Your task to perform on an android device: all mails in gmail Image 0: 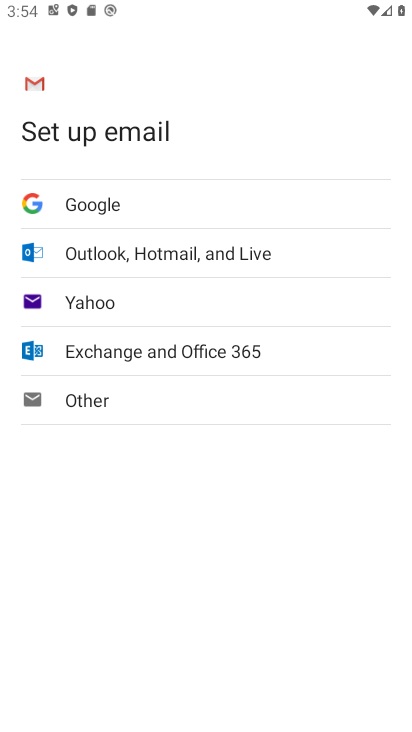
Step 0: press home button
Your task to perform on an android device: all mails in gmail Image 1: 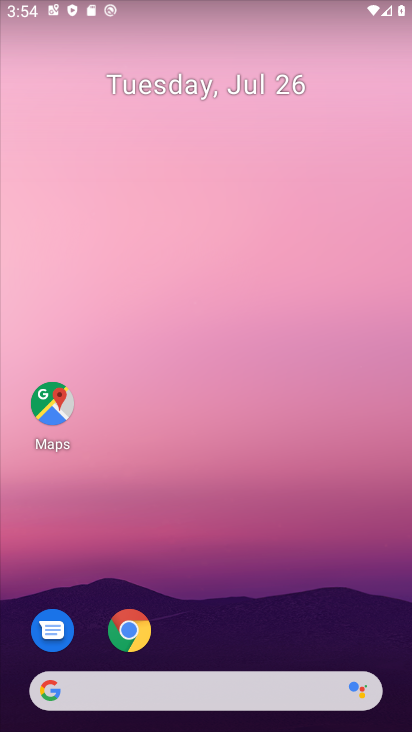
Step 1: drag from (225, 633) to (166, 162)
Your task to perform on an android device: all mails in gmail Image 2: 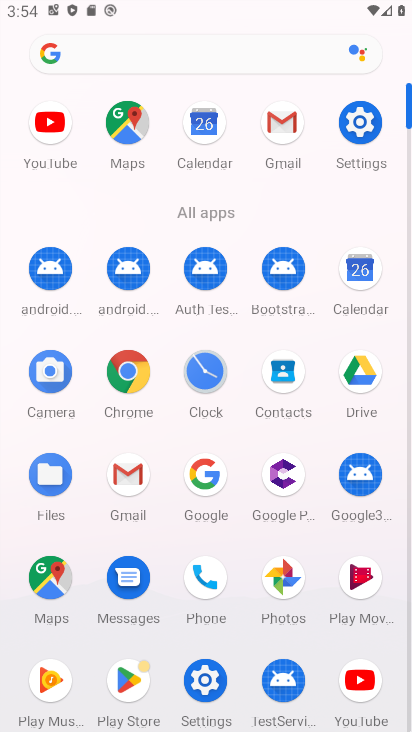
Step 2: click (287, 142)
Your task to perform on an android device: all mails in gmail Image 3: 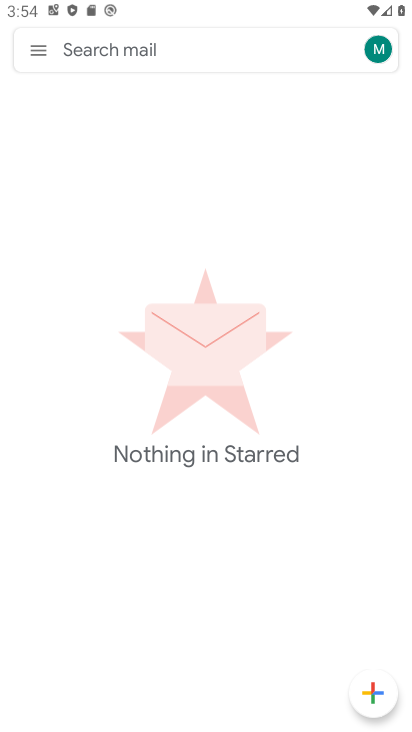
Step 3: click (35, 52)
Your task to perform on an android device: all mails in gmail Image 4: 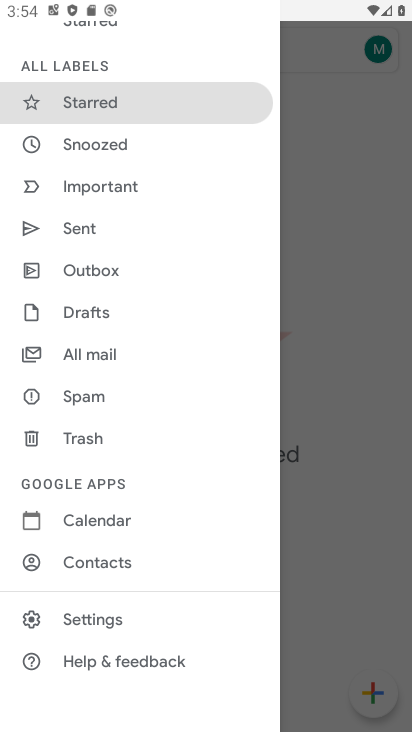
Step 4: click (78, 346)
Your task to perform on an android device: all mails in gmail Image 5: 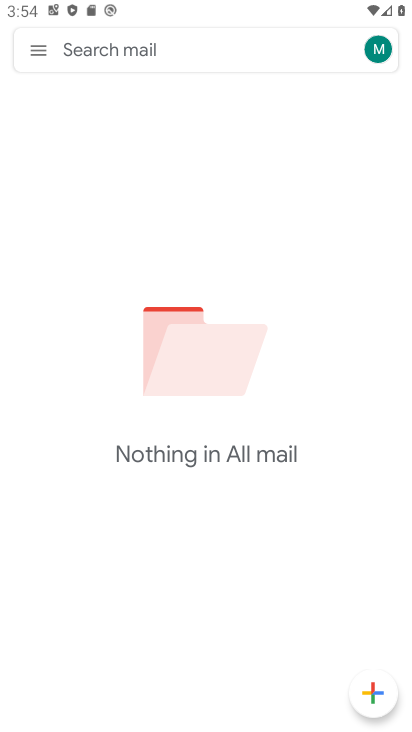
Step 5: task complete